Your task to perform on an android device: Is it going to rain today? Image 0: 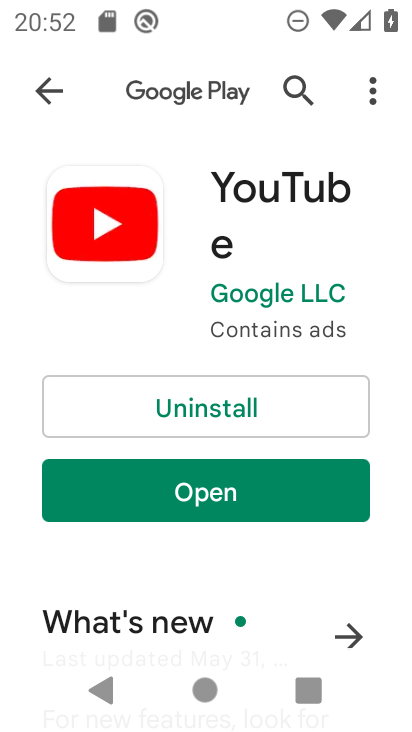
Step 0: press home button
Your task to perform on an android device: Is it going to rain today? Image 1: 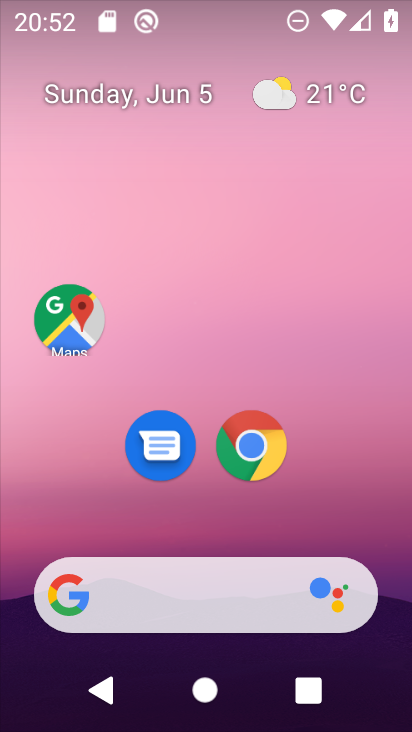
Step 1: click (204, 591)
Your task to perform on an android device: Is it going to rain today? Image 2: 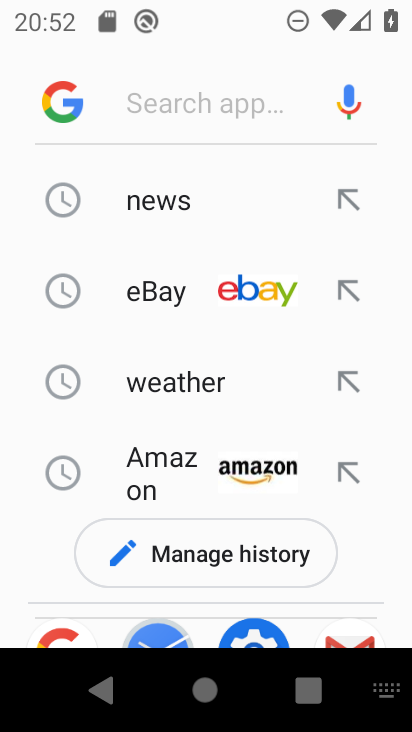
Step 2: type "Is it going to rain today?"
Your task to perform on an android device: Is it going to rain today? Image 3: 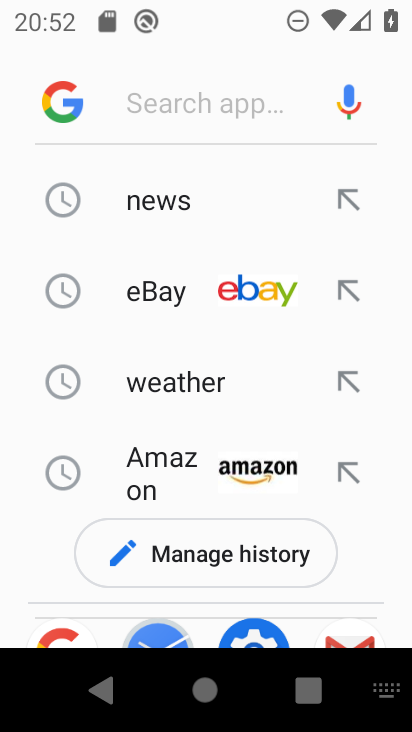
Step 3: click (159, 102)
Your task to perform on an android device: Is it going to rain today? Image 4: 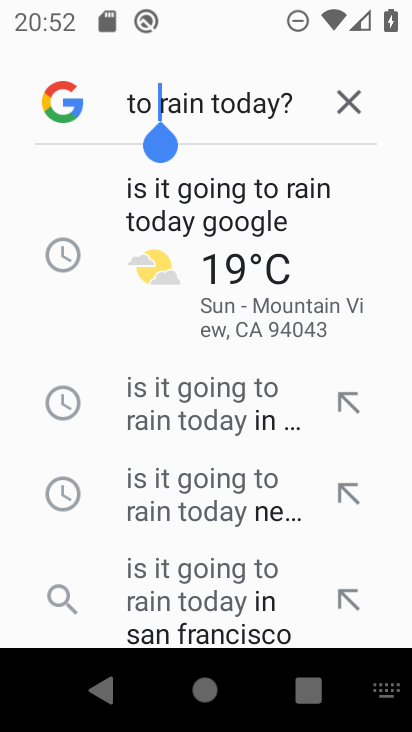
Step 4: click (222, 201)
Your task to perform on an android device: Is it going to rain today? Image 5: 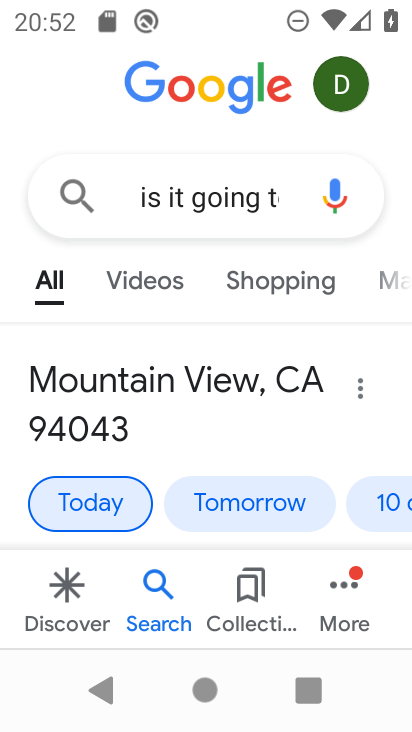
Step 5: task complete